Your task to perform on an android device: Open internet settings Image 0: 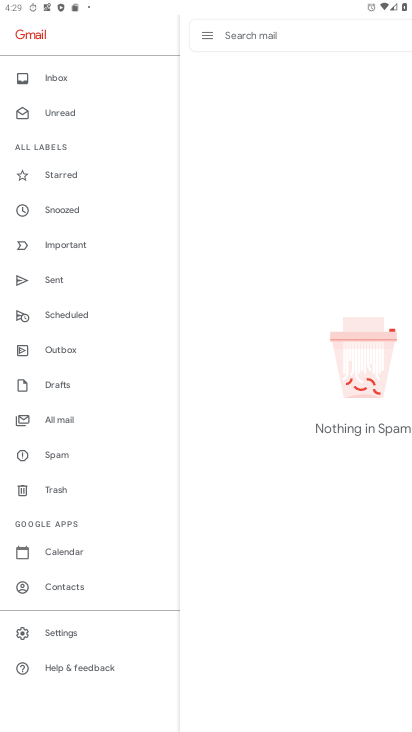
Step 0: press home button
Your task to perform on an android device: Open internet settings Image 1: 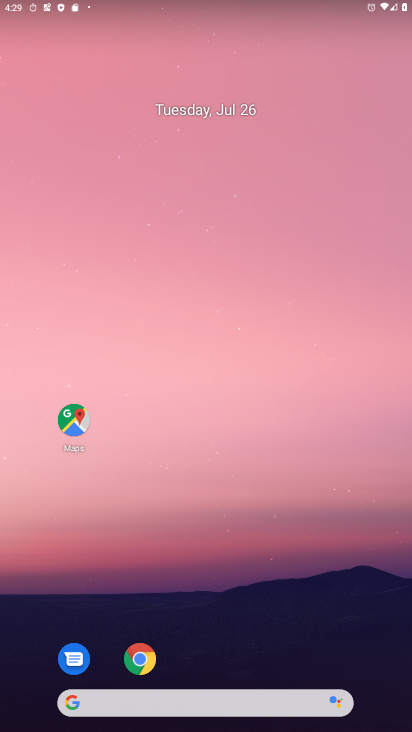
Step 1: drag from (238, 584) to (284, 23)
Your task to perform on an android device: Open internet settings Image 2: 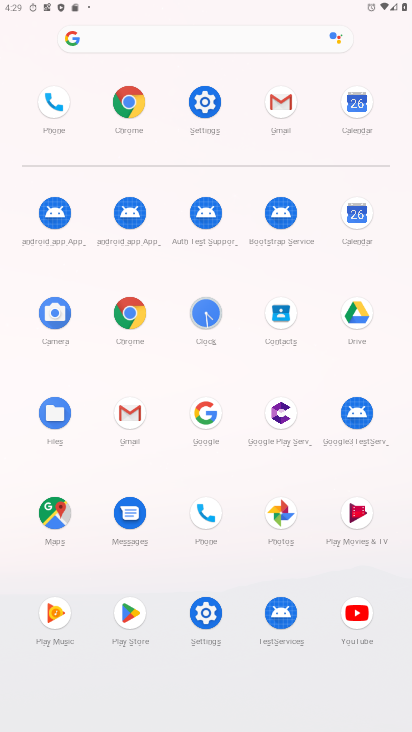
Step 2: click (203, 110)
Your task to perform on an android device: Open internet settings Image 3: 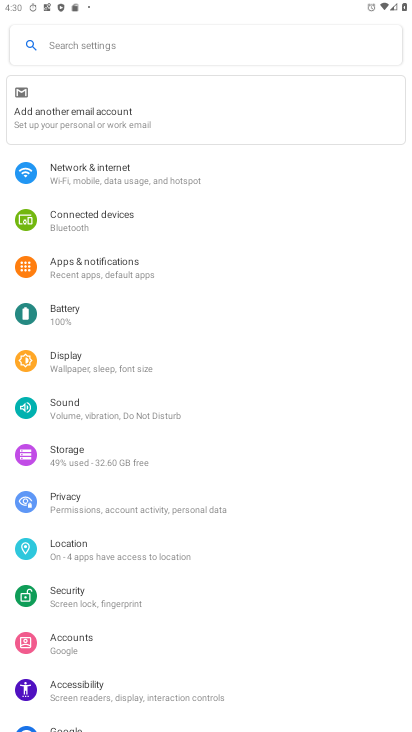
Step 3: click (106, 176)
Your task to perform on an android device: Open internet settings Image 4: 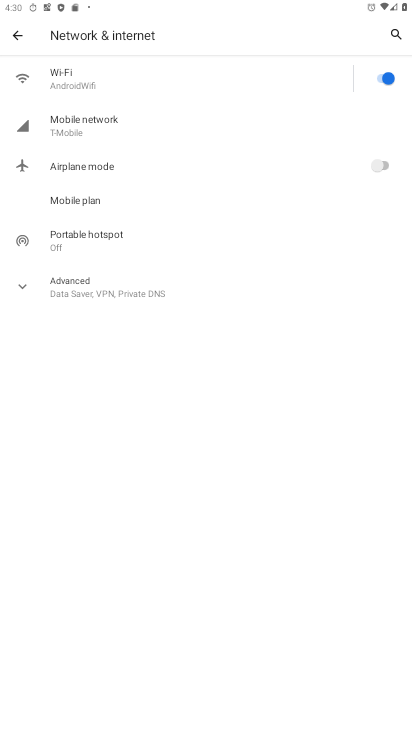
Step 4: task complete